Your task to perform on an android device: turn off smart reply in the gmail app Image 0: 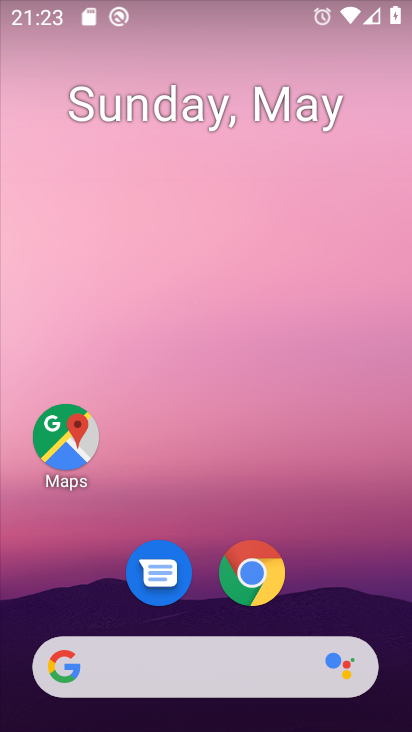
Step 0: drag from (257, 496) to (266, 1)
Your task to perform on an android device: turn off smart reply in the gmail app Image 1: 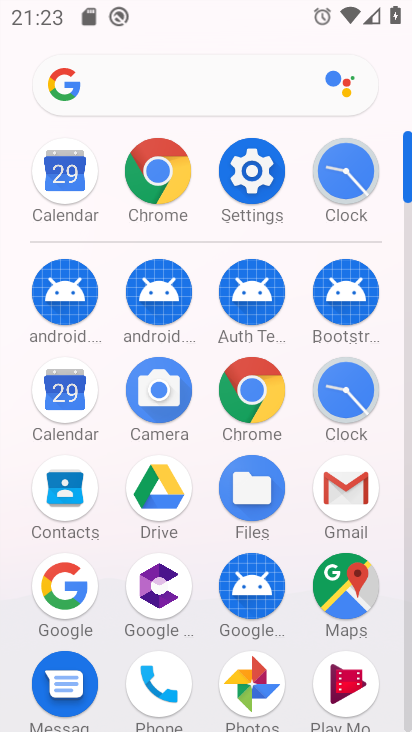
Step 1: click (338, 480)
Your task to perform on an android device: turn off smart reply in the gmail app Image 2: 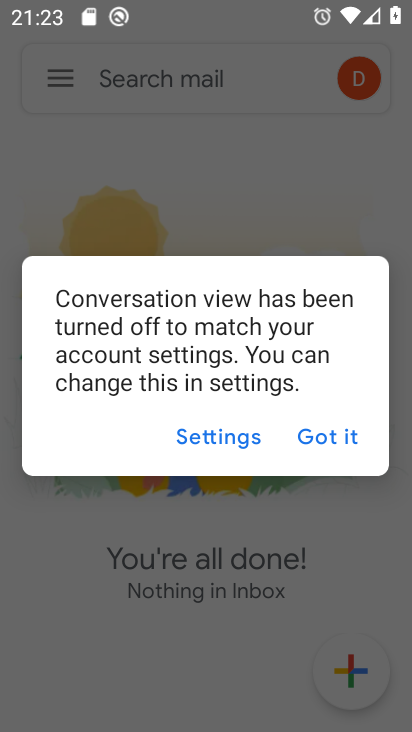
Step 2: click (317, 433)
Your task to perform on an android device: turn off smart reply in the gmail app Image 3: 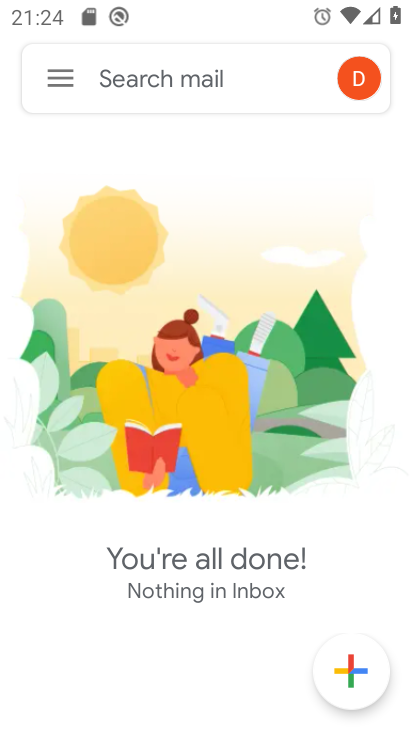
Step 3: click (59, 78)
Your task to perform on an android device: turn off smart reply in the gmail app Image 4: 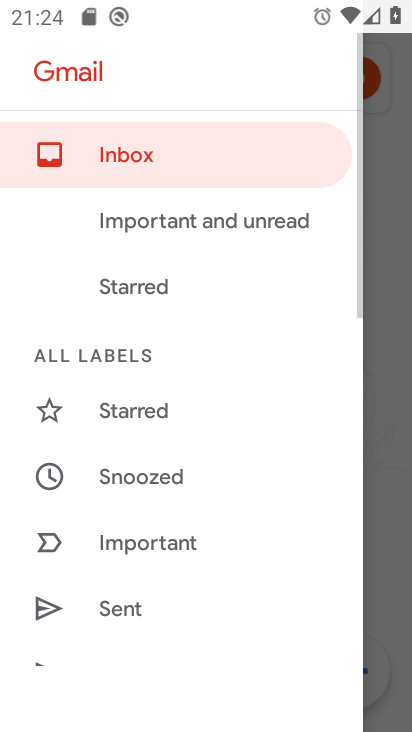
Step 4: drag from (172, 524) to (221, 27)
Your task to perform on an android device: turn off smart reply in the gmail app Image 5: 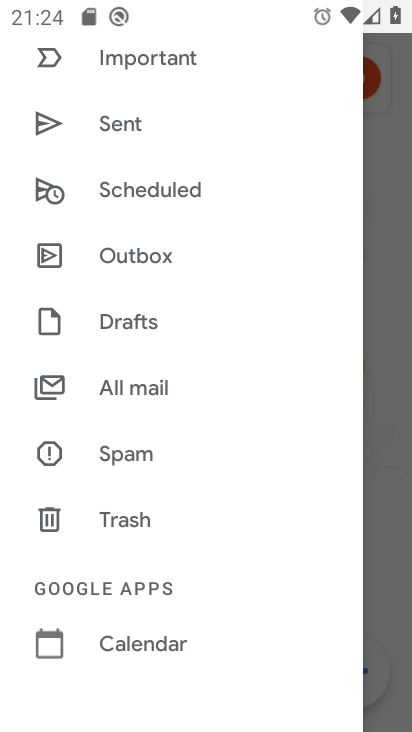
Step 5: drag from (201, 623) to (209, 39)
Your task to perform on an android device: turn off smart reply in the gmail app Image 6: 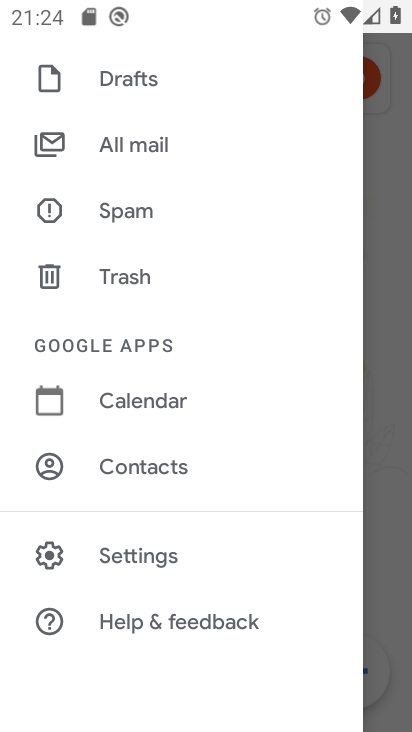
Step 6: click (200, 554)
Your task to perform on an android device: turn off smart reply in the gmail app Image 7: 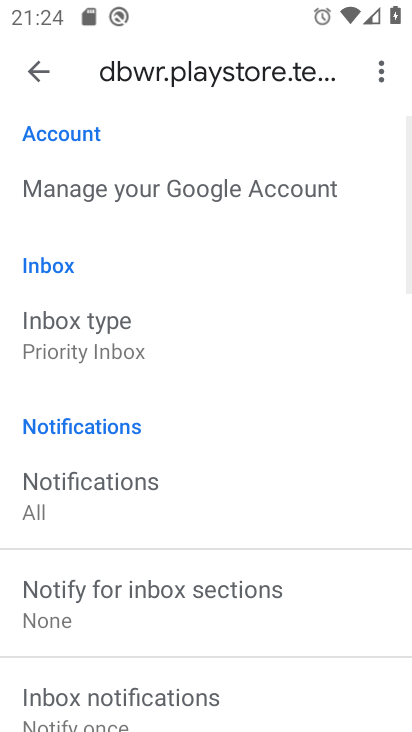
Step 7: drag from (202, 554) to (210, 122)
Your task to perform on an android device: turn off smart reply in the gmail app Image 8: 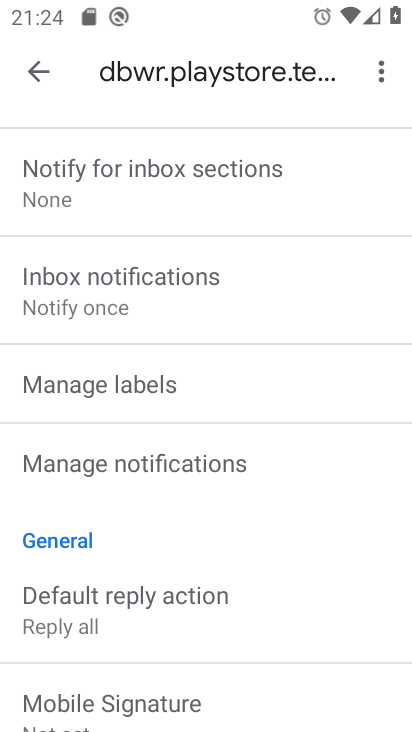
Step 8: drag from (237, 594) to (247, 151)
Your task to perform on an android device: turn off smart reply in the gmail app Image 9: 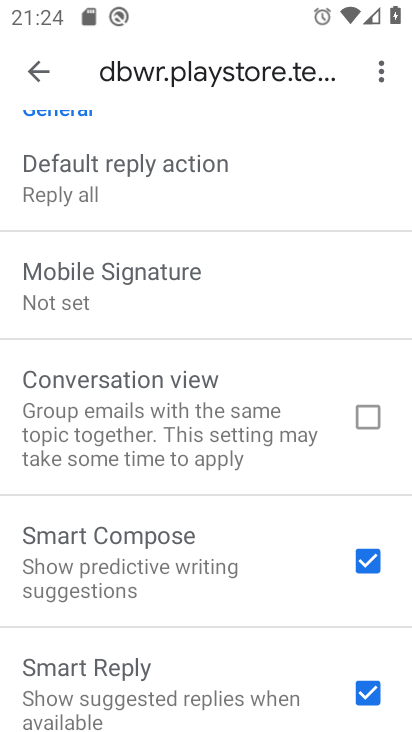
Step 9: drag from (266, 593) to (246, 394)
Your task to perform on an android device: turn off smart reply in the gmail app Image 10: 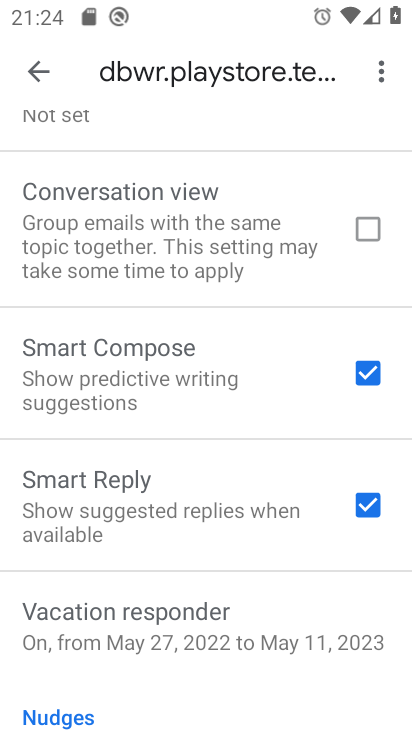
Step 10: click (373, 503)
Your task to perform on an android device: turn off smart reply in the gmail app Image 11: 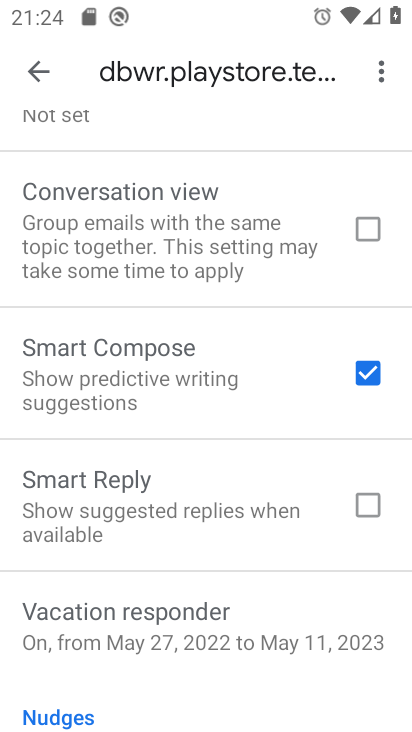
Step 11: task complete